Your task to perform on an android device: open the mobile data screen to see how much data has been used Image 0: 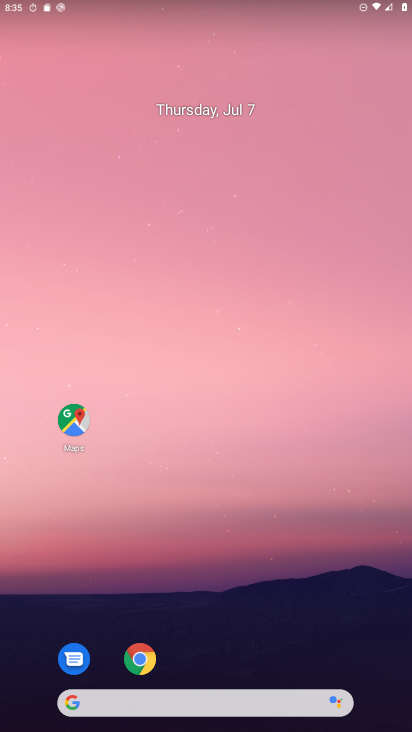
Step 0: drag from (380, 686) to (274, 31)
Your task to perform on an android device: open the mobile data screen to see how much data has been used Image 1: 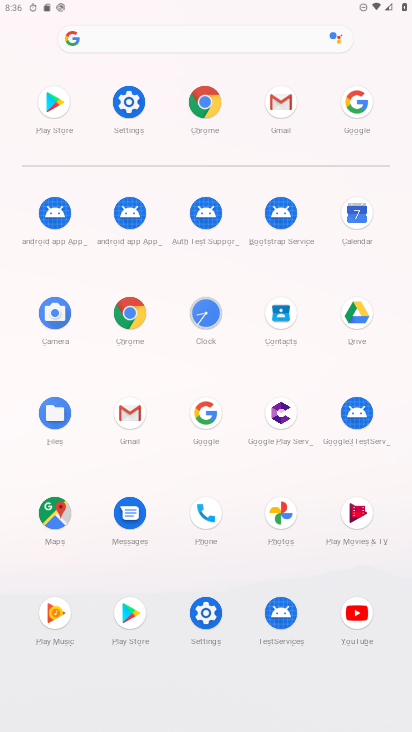
Step 1: click (137, 94)
Your task to perform on an android device: open the mobile data screen to see how much data has been used Image 2: 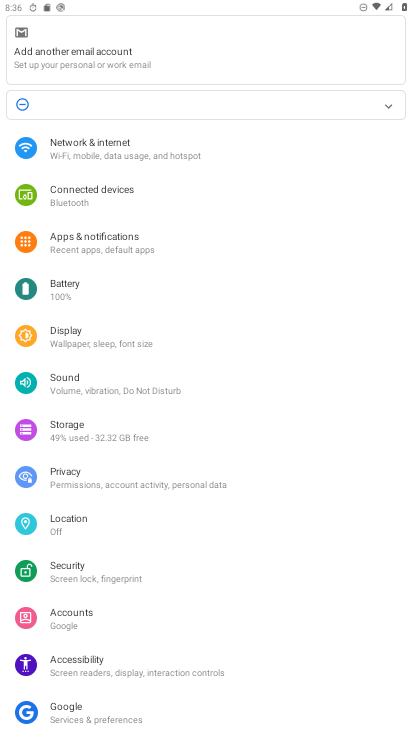
Step 2: task complete